Your task to perform on an android device: manage bookmarks in the chrome app Image 0: 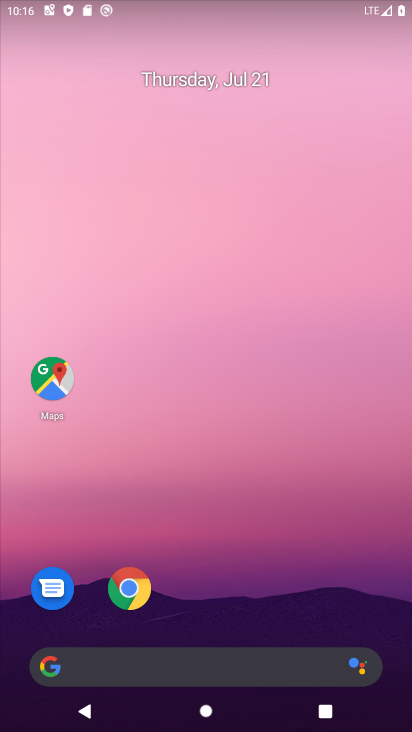
Step 0: click (128, 588)
Your task to perform on an android device: manage bookmarks in the chrome app Image 1: 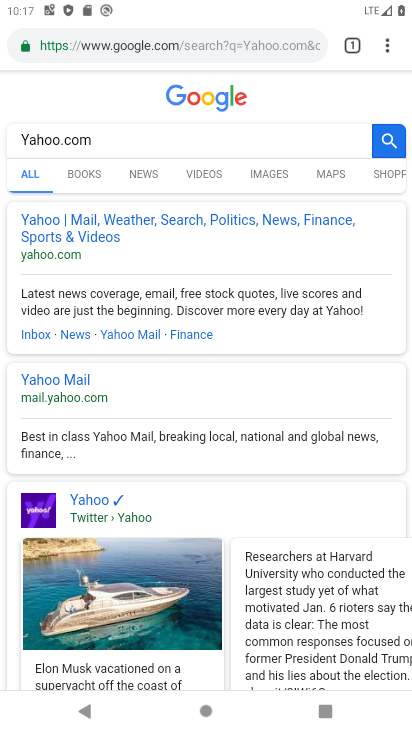
Step 1: click (384, 40)
Your task to perform on an android device: manage bookmarks in the chrome app Image 2: 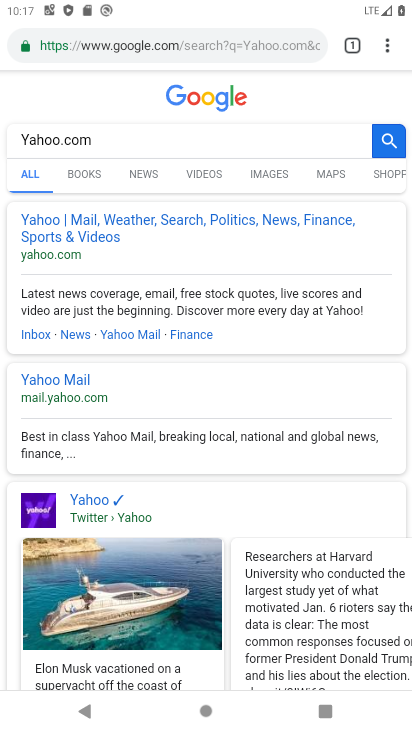
Step 2: click (384, 43)
Your task to perform on an android device: manage bookmarks in the chrome app Image 3: 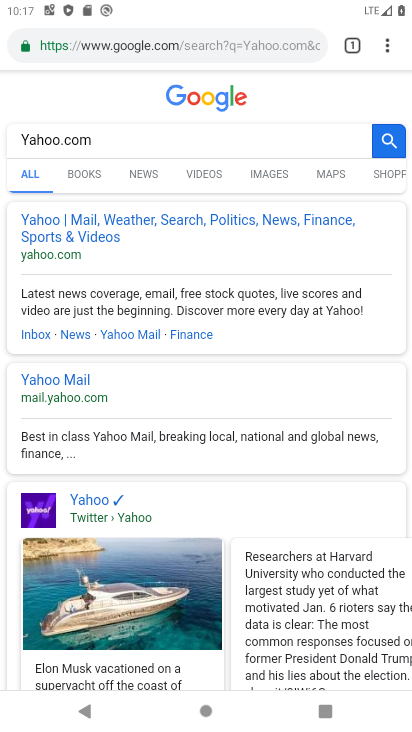
Step 3: click (384, 43)
Your task to perform on an android device: manage bookmarks in the chrome app Image 4: 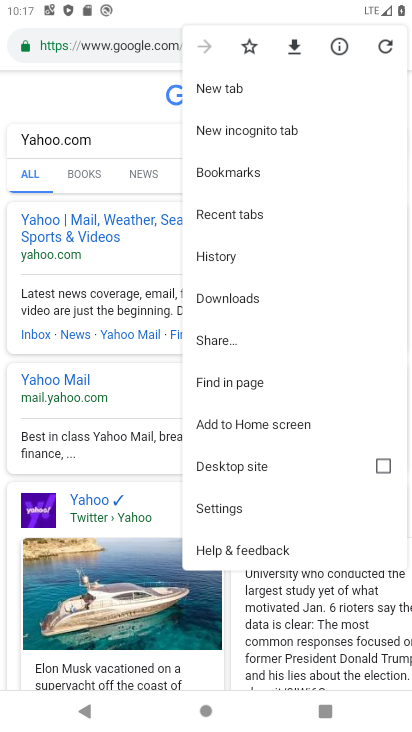
Step 4: click (234, 171)
Your task to perform on an android device: manage bookmarks in the chrome app Image 5: 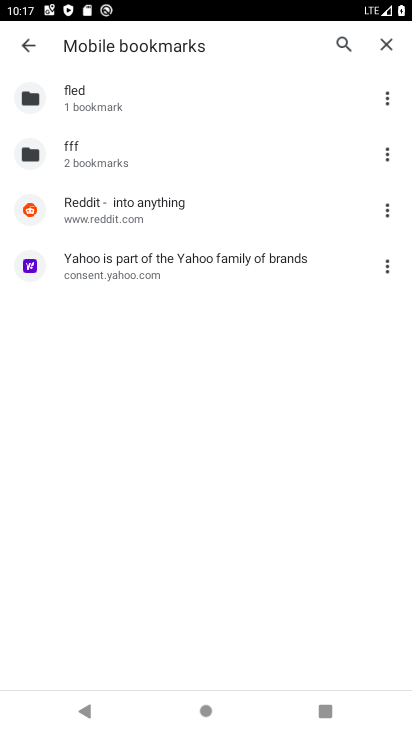
Step 5: click (387, 261)
Your task to perform on an android device: manage bookmarks in the chrome app Image 6: 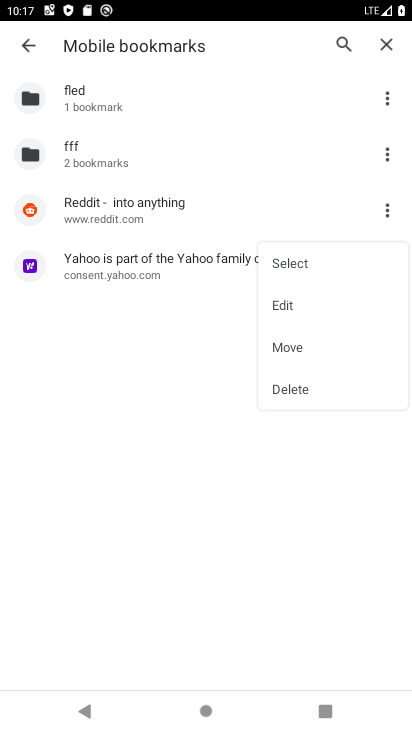
Step 6: click (280, 380)
Your task to perform on an android device: manage bookmarks in the chrome app Image 7: 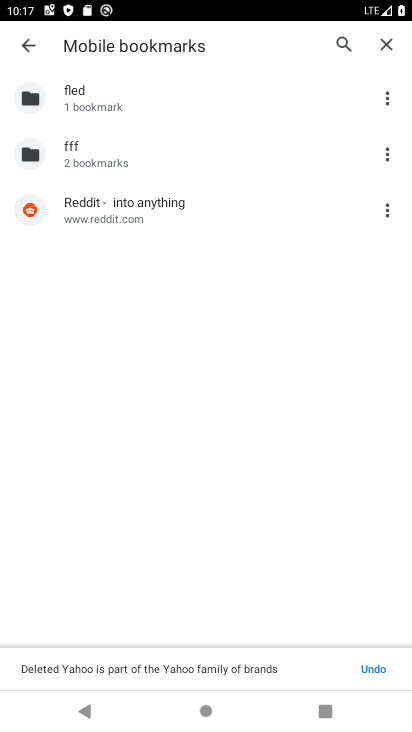
Step 7: task complete